Your task to perform on an android device: empty trash in google photos Image 0: 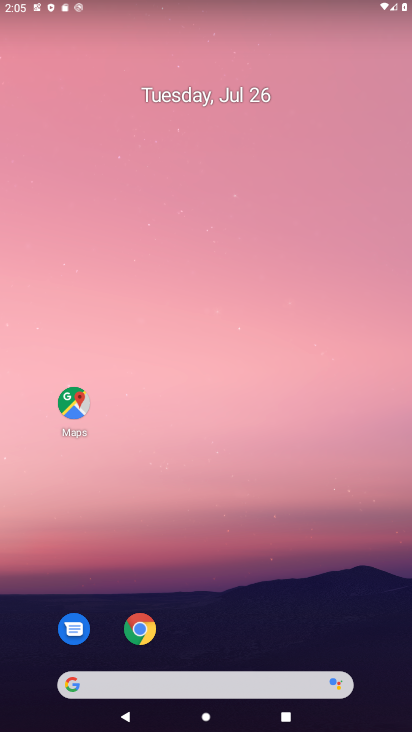
Step 0: drag from (205, 624) to (209, 194)
Your task to perform on an android device: empty trash in google photos Image 1: 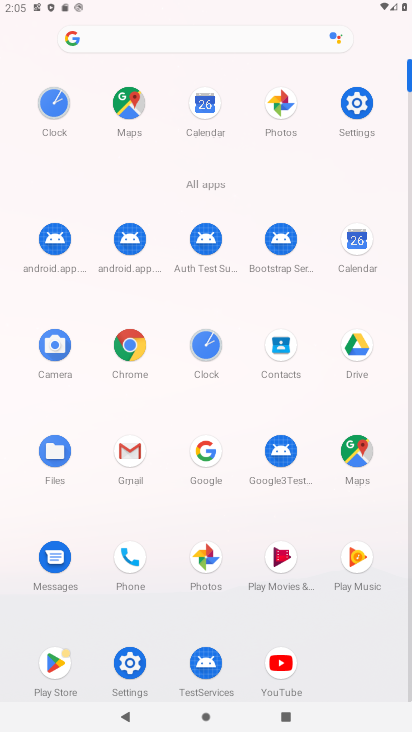
Step 1: click (286, 120)
Your task to perform on an android device: empty trash in google photos Image 2: 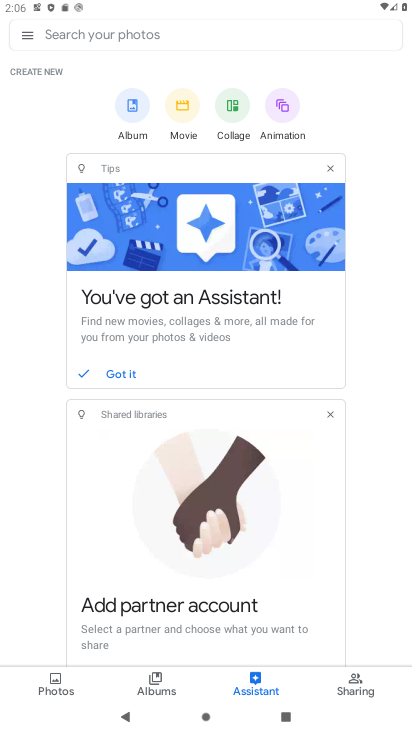
Step 2: click (31, 34)
Your task to perform on an android device: empty trash in google photos Image 3: 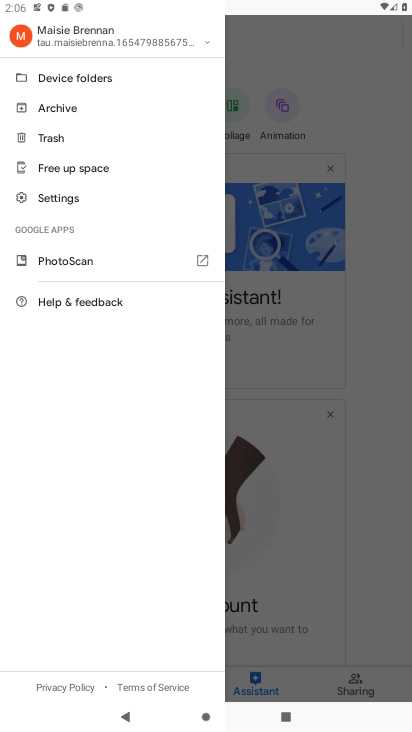
Step 3: click (59, 143)
Your task to perform on an android device: empty trash in google photos Image 4: 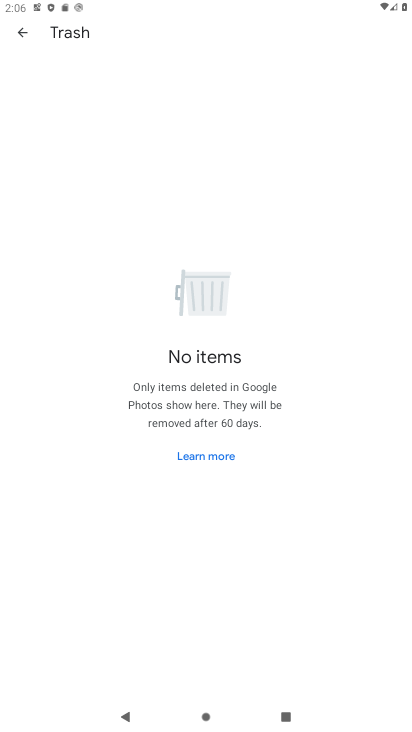
Step 4: task complete